Your task to perform on an android device: turn off location history Image 0: 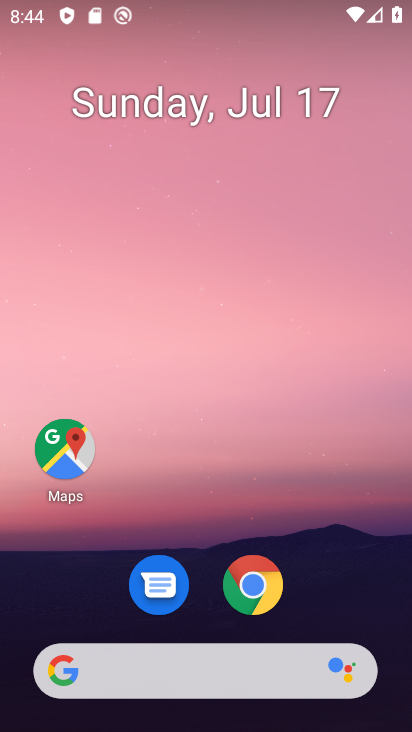
Step 0: click (76, 439)
Your task to perform on an android device: turn off location history Image 1: 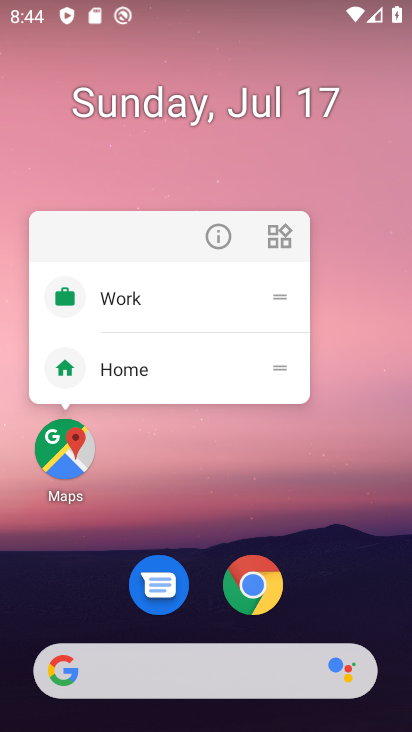
Step 1: click (53, 463)
Your task to perform on an android device: turn off location history Image 2: 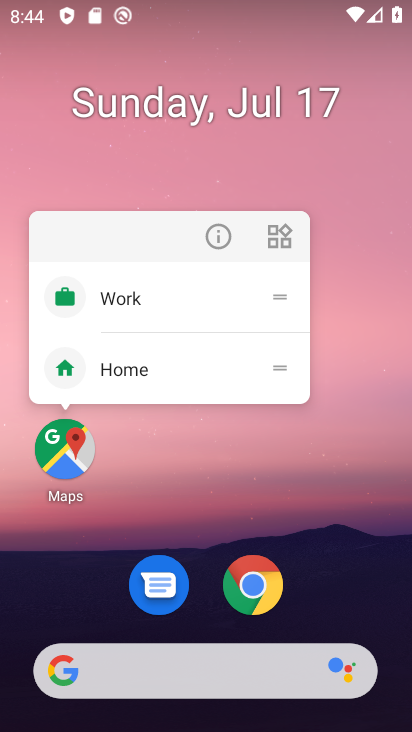
Step 2: click (34, 466)
Your task to perform on an android device: turn off location history Image 3: 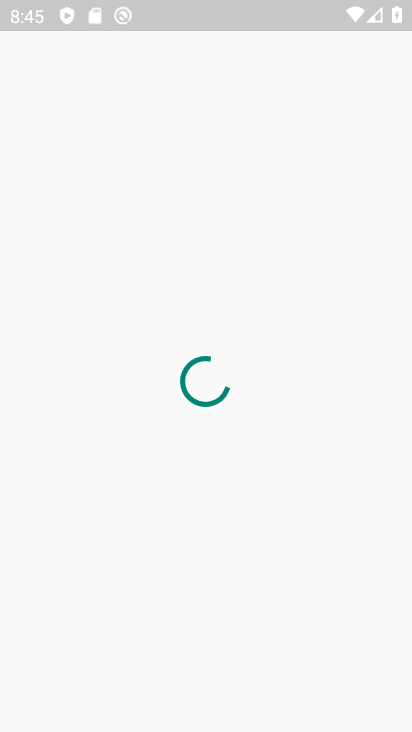
Step 3: drag from (207, 499) to (278, 241)
Your task to perform on an android device: turn off location history Image 4: 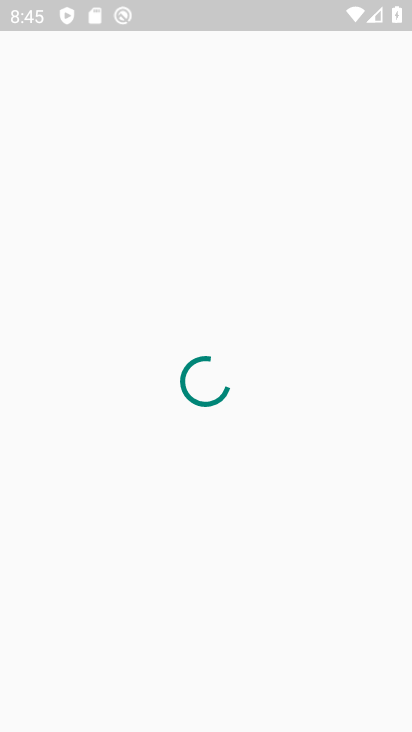
Step 4: press home button
Your task to perform on an android device: turn off location history Image 5: 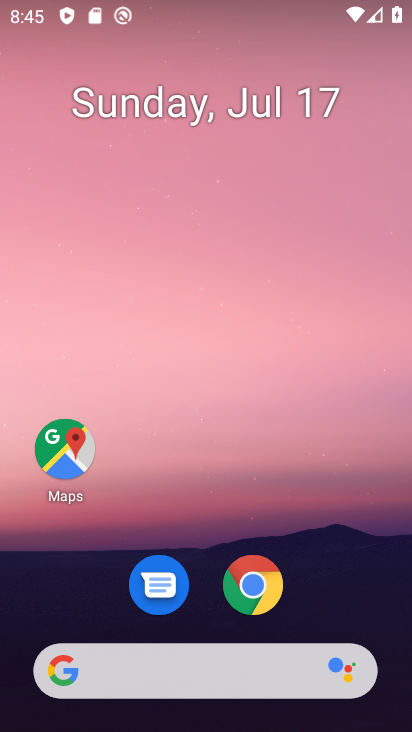
Step 5: click (70, 449)
Your task to perform on an android device: turn off location history Image 6: 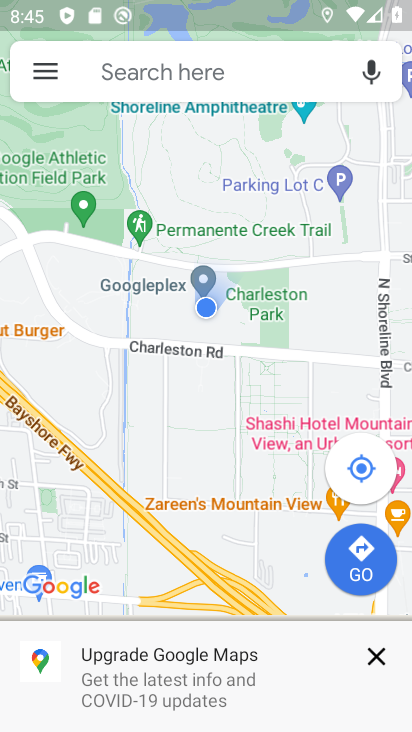
Step 6: click (45, 80)
Your task to perform on an android device: turn off location history Image 7: 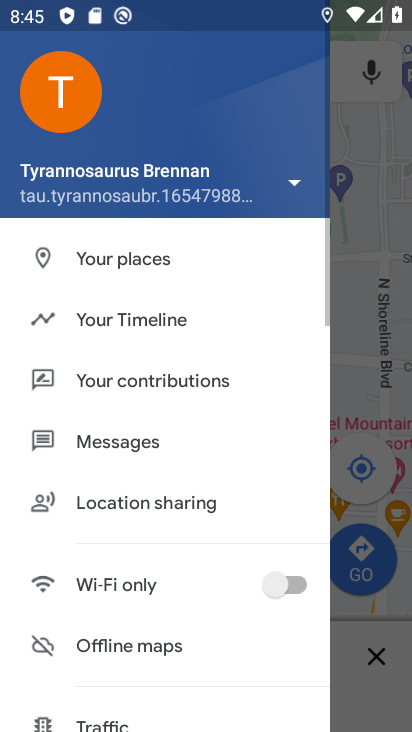
Step 7: click (131, 324)
Your task to perform on an android device: turn off location history Image 8: 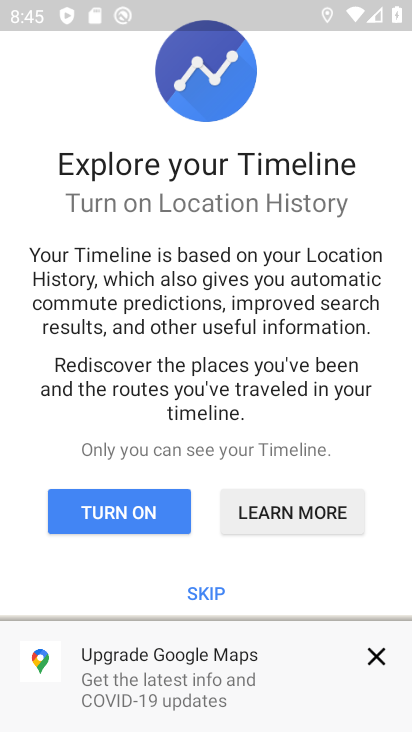
Step 8: click (192, 585)
Your task to perform on an android device: turn off location history Image 9: 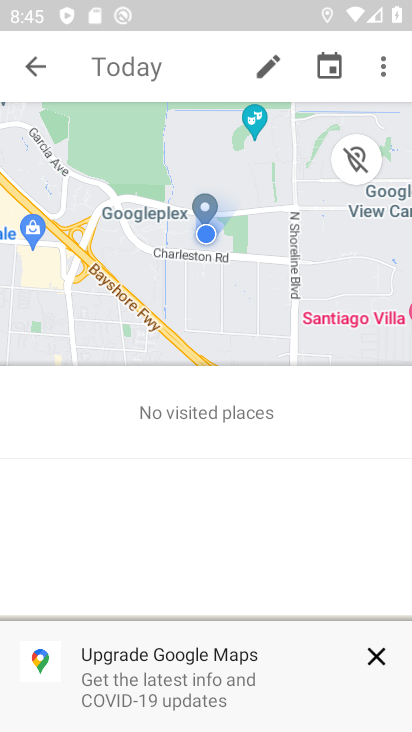
Step 9: click (382, 68)
Your task to perform on an android device: turn off location history Image 10: 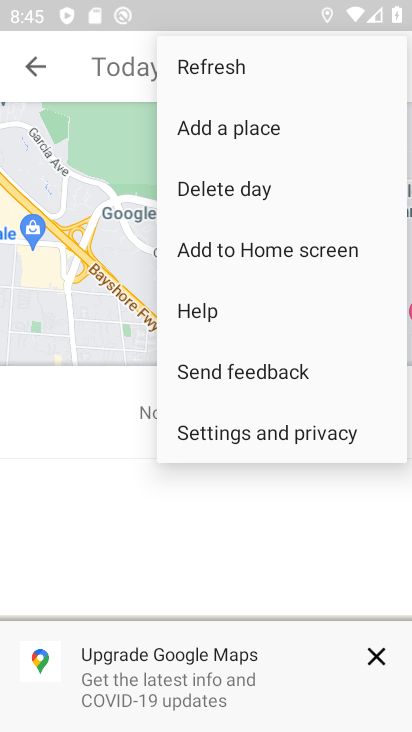
Step 10: click (267, 434)
Your task to perform on an android device: turn off location history Image 11: 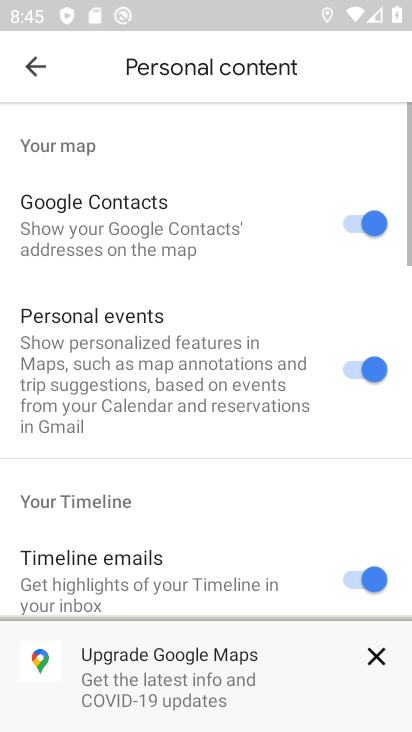
Step 11: drag from (182, 549) to (309, 185)
Your task to perform on an android device: turn off location history Image 12: 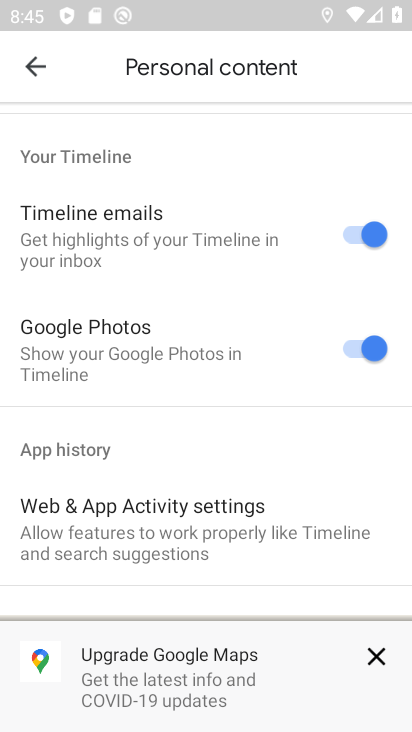
Step 12: drag from (182, 469) to (261, 68)
Your task to perform on an android device: turn off location history Image 13: 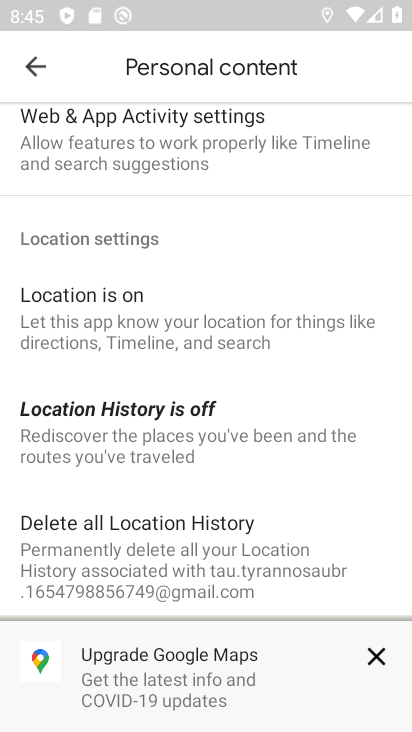
Step 13: click (144, 425)
Your task to perform on an android device: turn off location history Image 14: 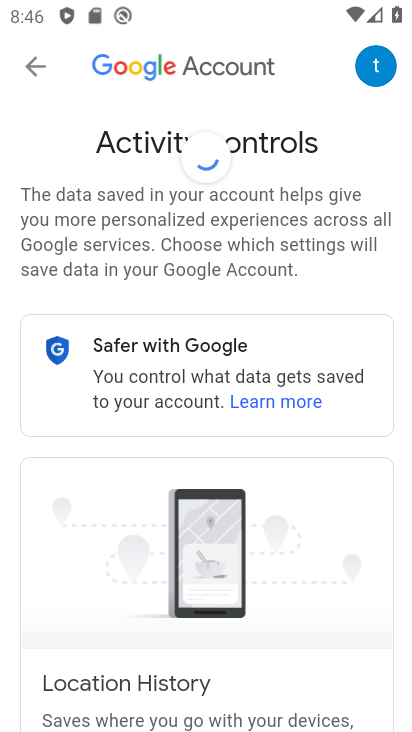
Step 14: task complete